Your task to perform on an android device: Go to notification settings Image 0: 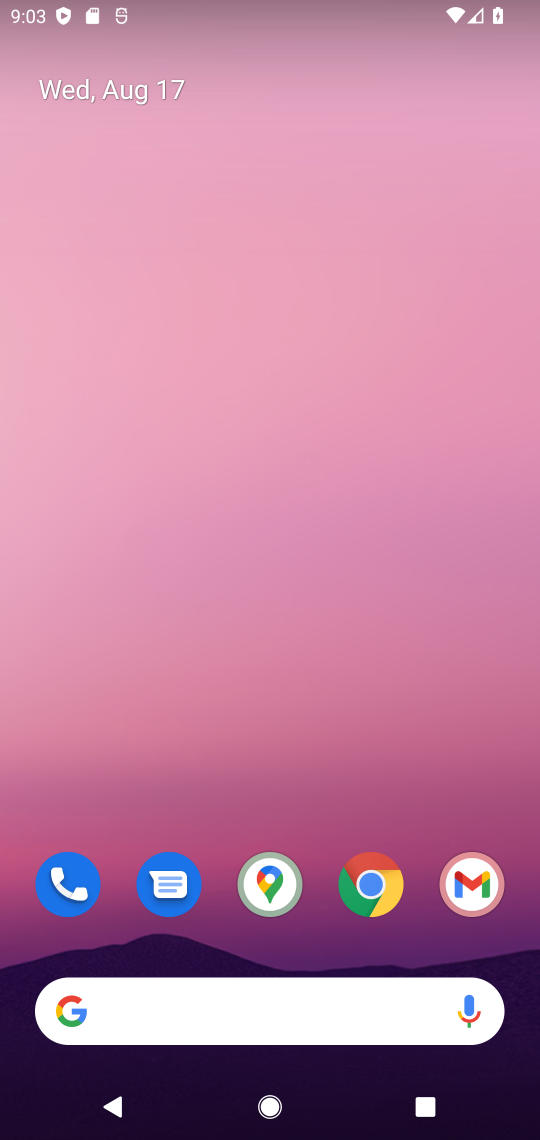
Step 0: drag from (279, 804) to (267, 139)
Your task to perform on an android device: Go to notification settings Image 1: 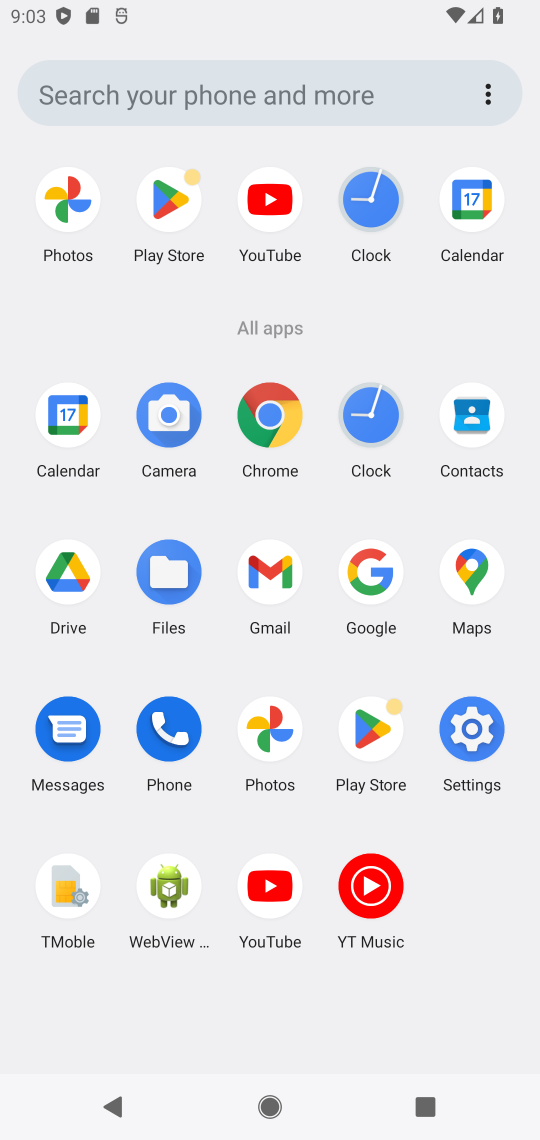
Step 1: click (450, 704)
Your task to perform on an android device: Go to notification settings Image 2: 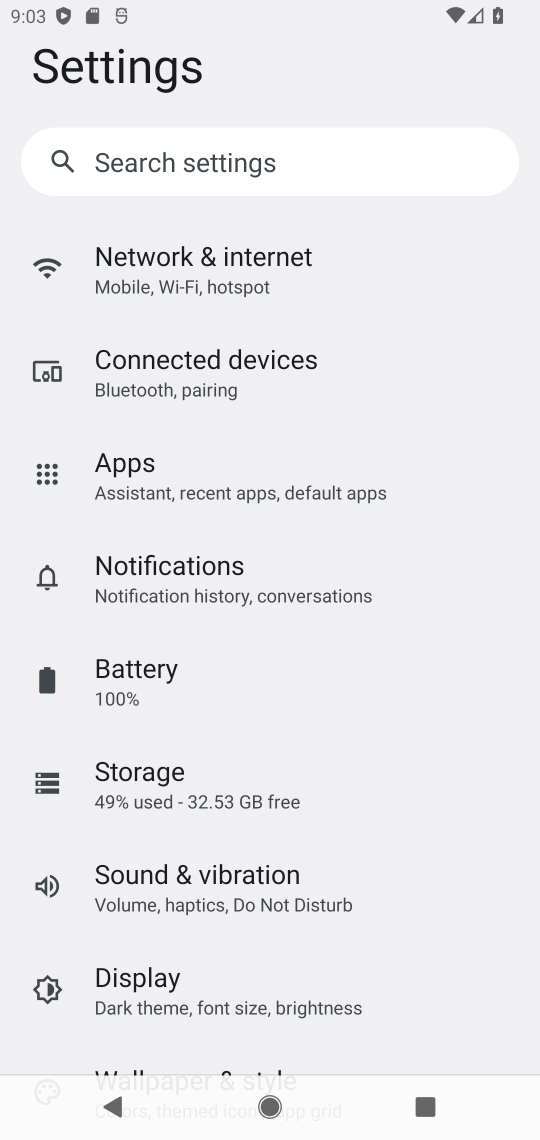
Step 2: click (329, 577)
Your task to perform on an android device: Go to notification settings Image 3: 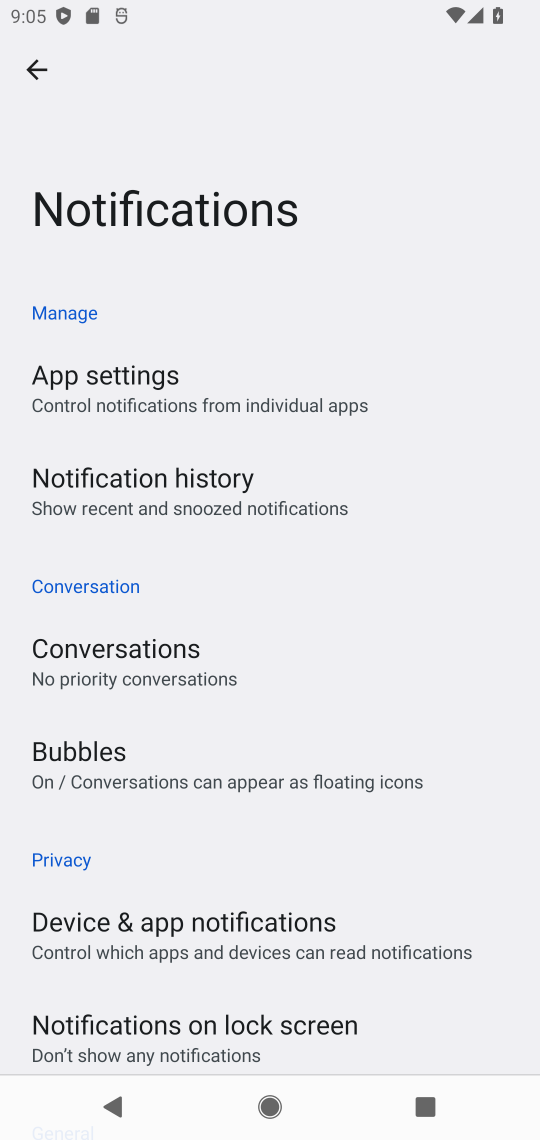
Step 3: task complete